Your task to perform on an android device: clear history in the chrome app Image 0: 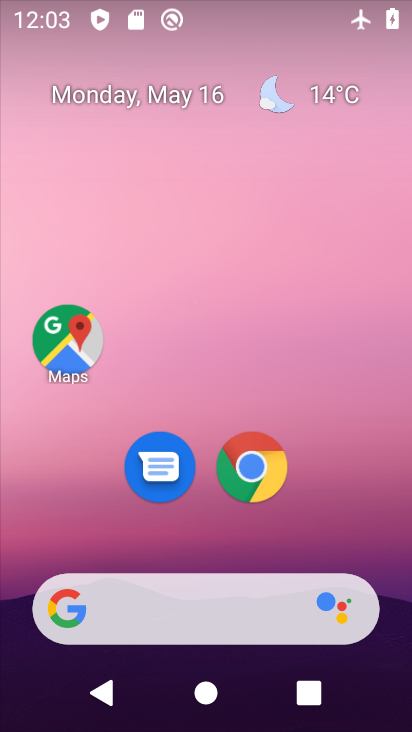
Step 0: drag from (295, 482) to (317, 213)
Your task to perform on an android device: clear history in the chrome app Image 1: 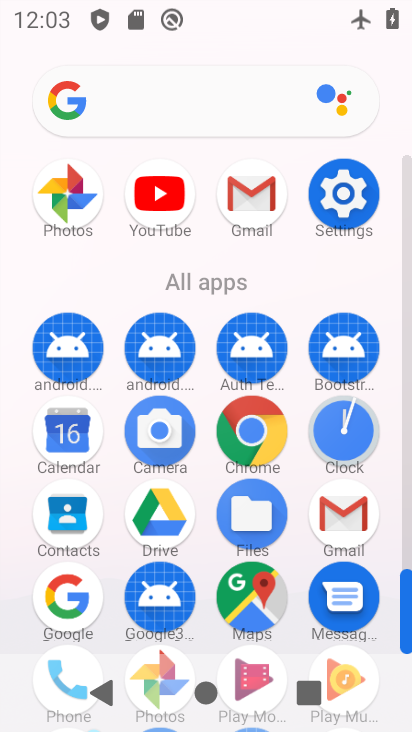
Step 1: click (257, 417)
Your task to perform on an android device: clear history in the chrome app Image 2: 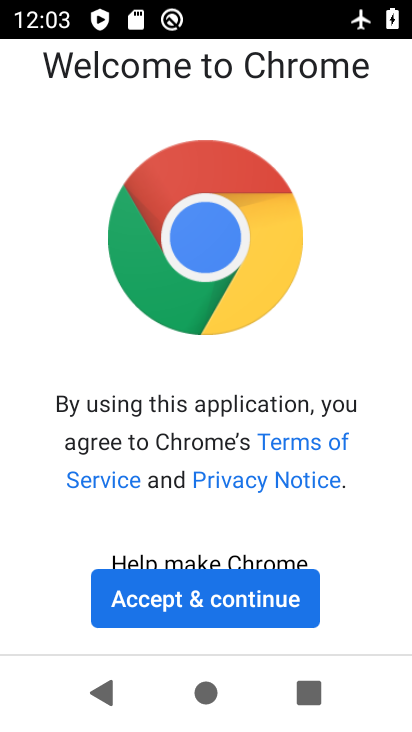
Step 2: click (227, 596)
Your task to perform on an android device: clear history in the chrome app Image 3: 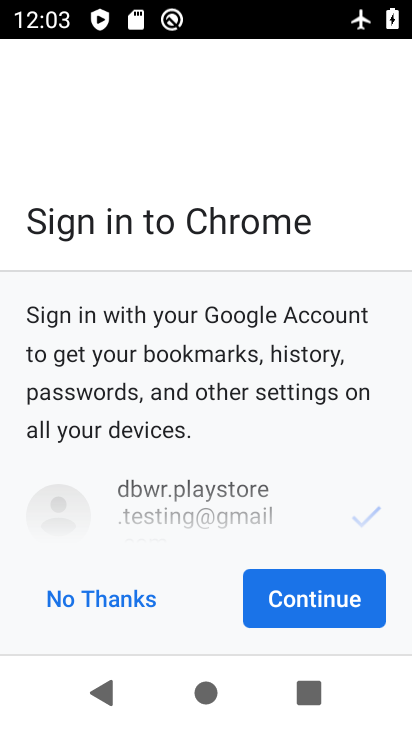
Step 3: click (301, 579)
Your task to perform on an android device: clear history in the chrome app Image 4: 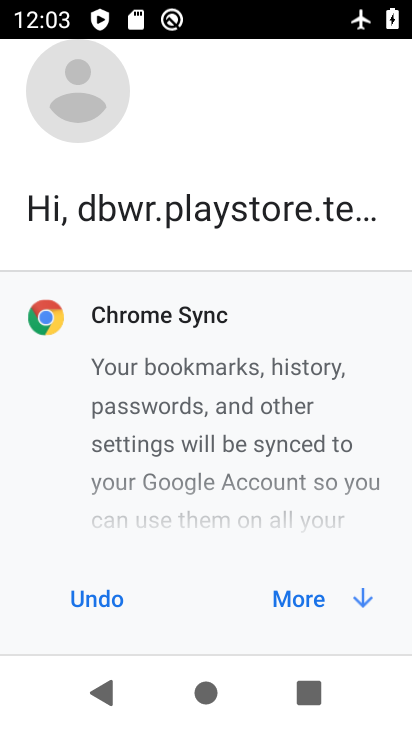
Step 4: click (312, 593)
Your task to perform on an android device: clear history in the chrome app Image 5: 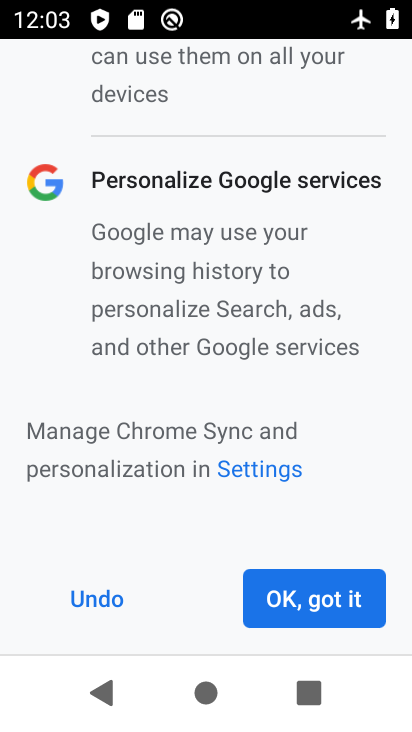
Step 5: click (279, 597)
Your task to perform on an android device: clear history in the chrome app Image 6: 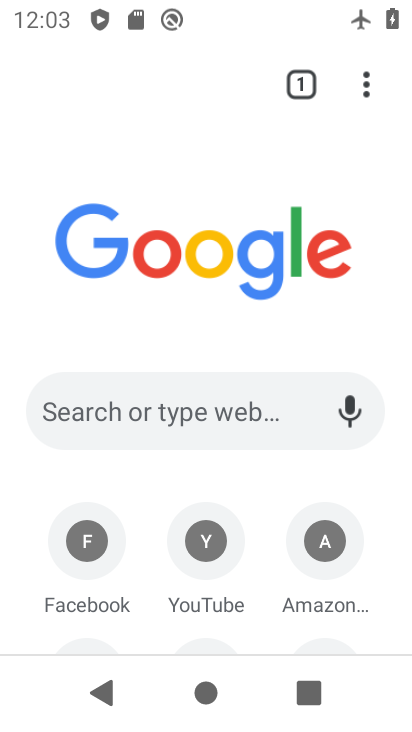
Step 6: click (378, 71)
Your task to perform on an android device: clear history in the chrome app Image 7: 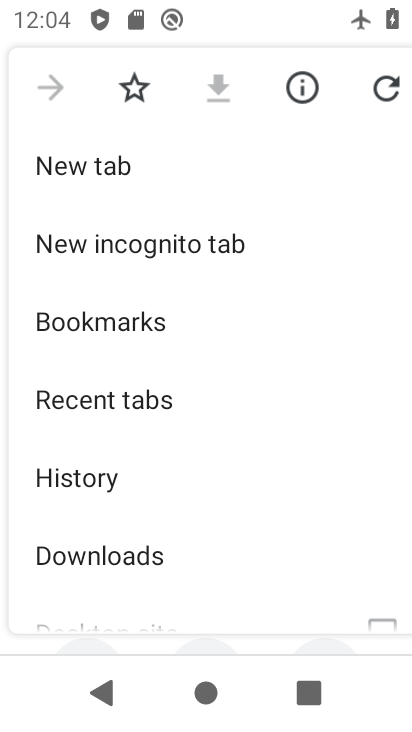
Step 7: click (124, 476)
Your task to perform on an android device: clear history in the chrome app Image 8: 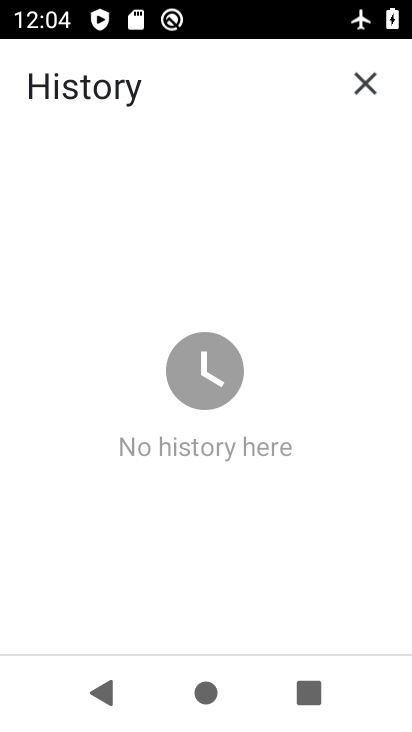
Step 8: task complete